Your task to perform on an android device: turn off smart reply in the gmail app Image 0: 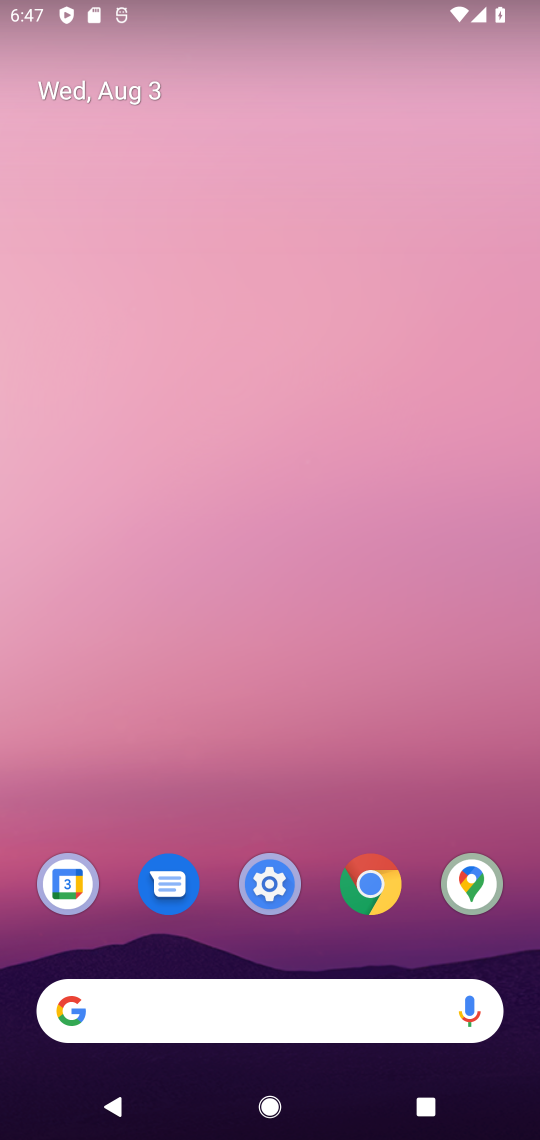
Step 0: drag from (263, 730) to (292, 239)
Your task to perform on an android device: turn off smart reply in the gmail app Image 1: 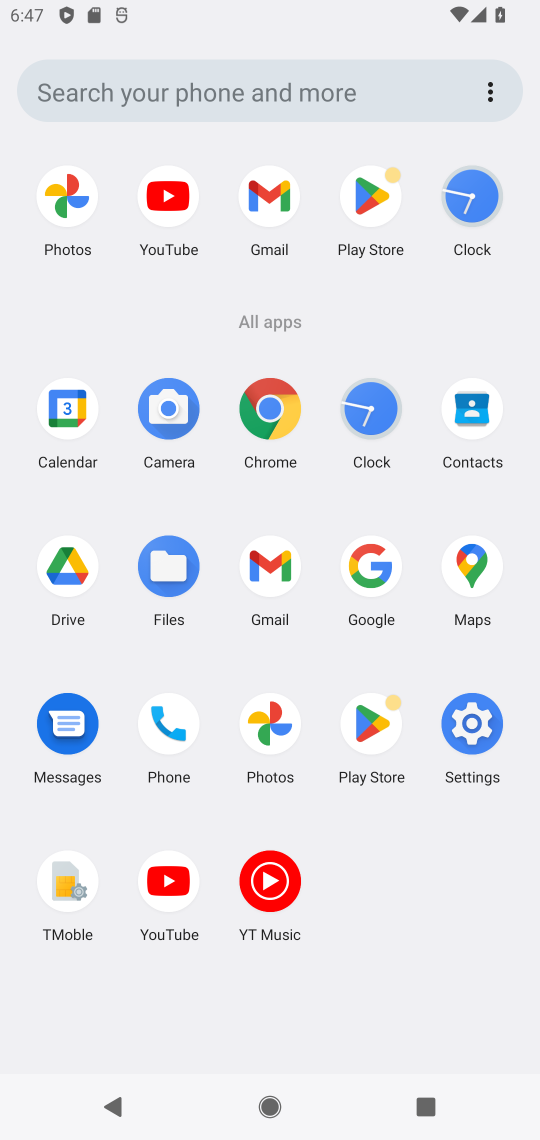
Step 1: click (264, 572)
Your task to perform on an android device: turn off smart reply in the gmail app Image 2: 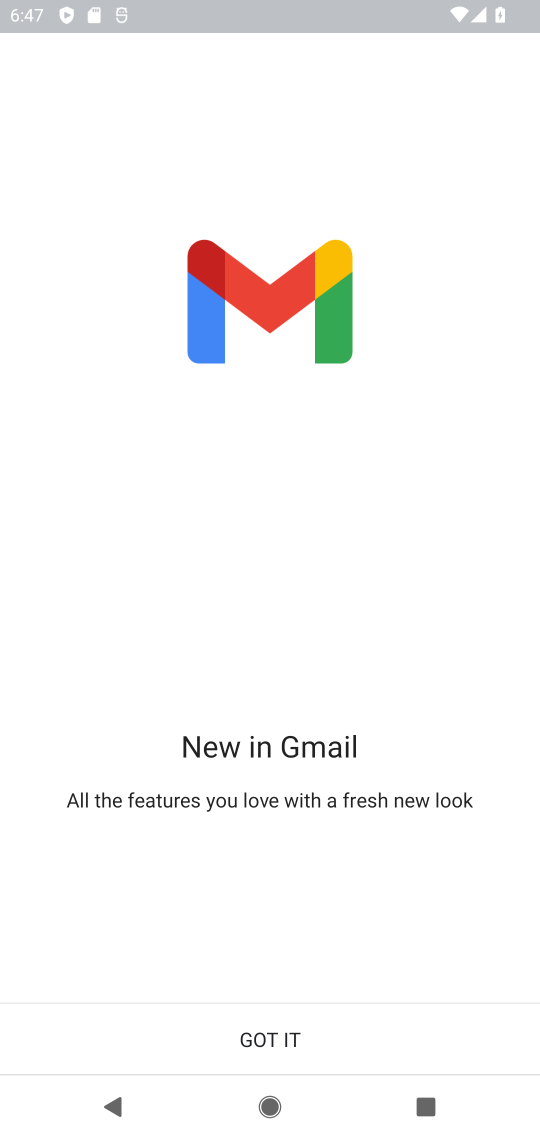
Step 2: click (272, 1045)
Your task to perform on an android device: turn off smart reply in the gmail app Image 3: 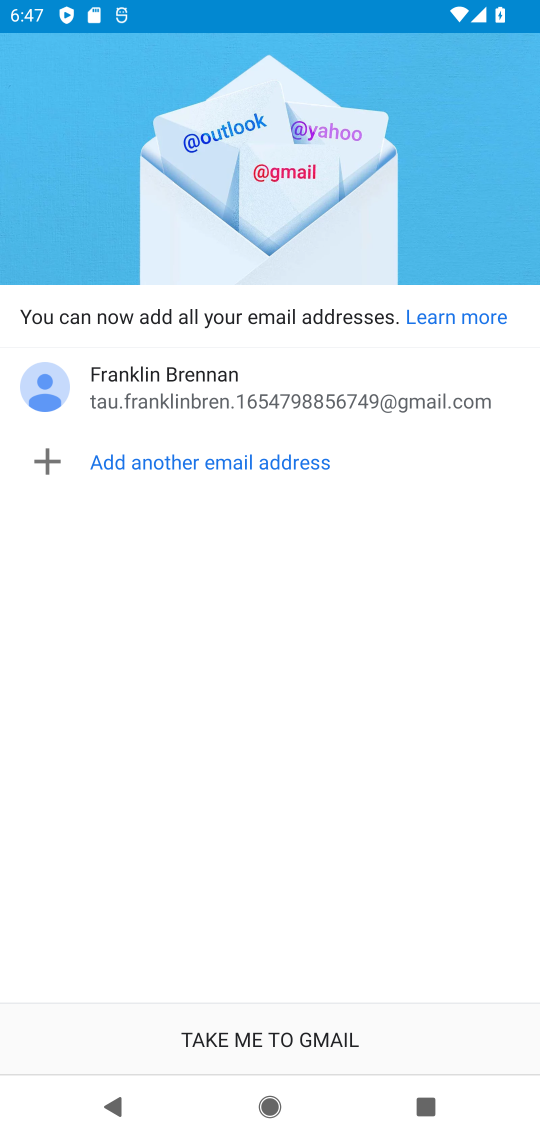
Step 3: click (290, 1021)
Your task to perform on an android device: turn off smart reply in the gmail app Image 4: 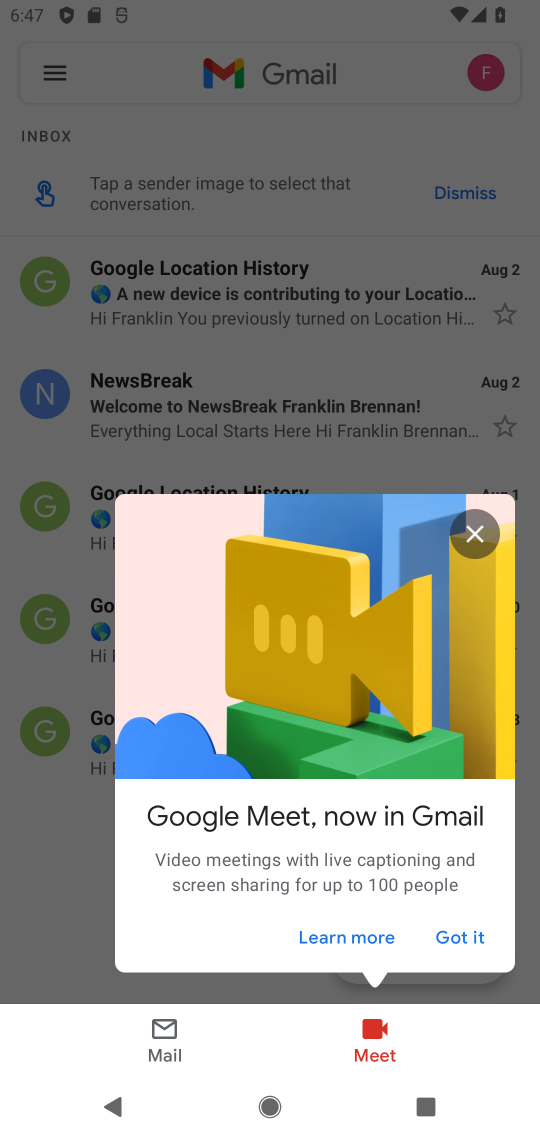
Step 4: task complete